Your task to perform on an android device: Show me productivity apps on the Play Store Image 0: 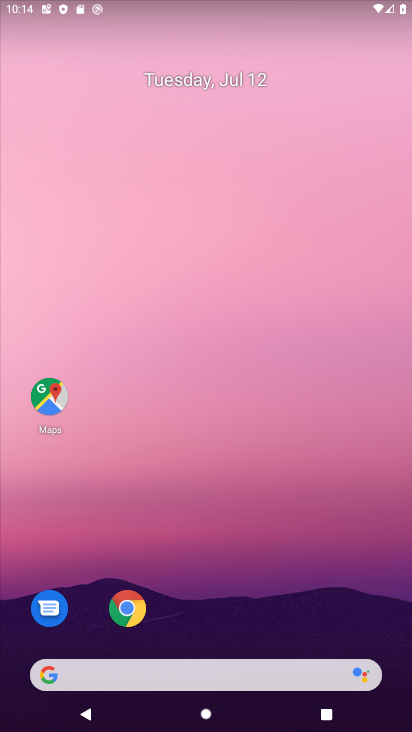
Step 0: drag from (240, 560) to (328, 29)
Your task to perform on an android device: Show me productivity apps on the Play Store Image 1: 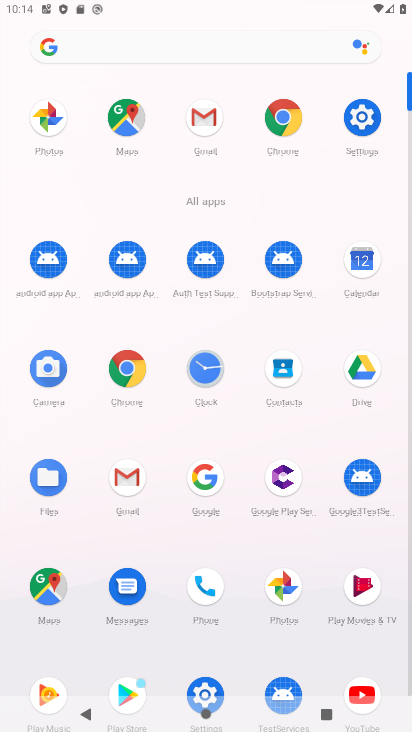
Step 1: click (128, 684)
Your task to perform on an android device: Show me productivity apps on the Play Store Image 2: 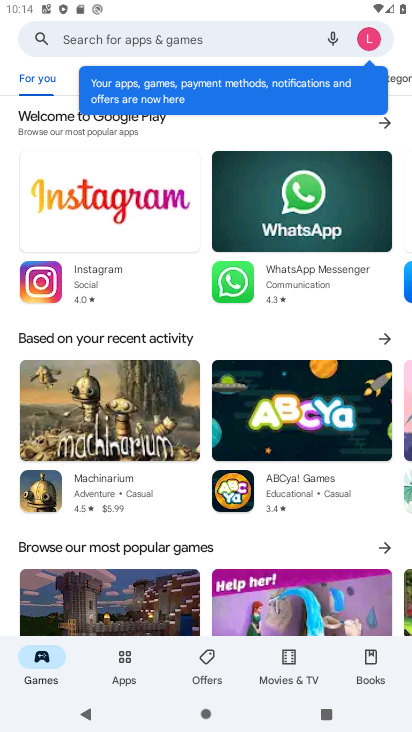
Step 2: click (126, 667)
Your task to perform on an android device: Show me productivity apps on the Play Store Image 3: 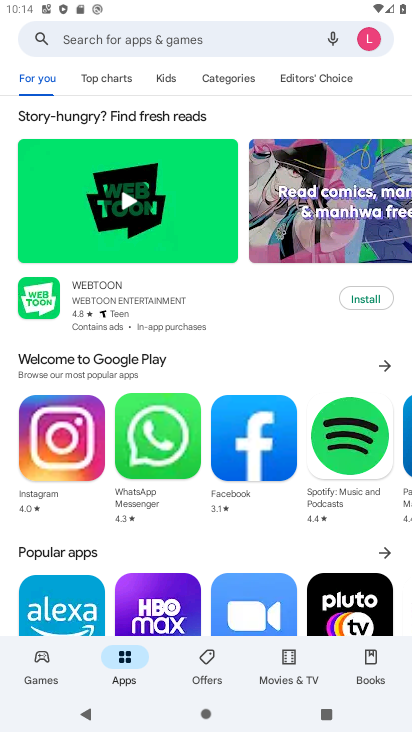
Step 3: click (244, 82)
Your task to perform on an android device: Show me productivity apps on the Play Store Image 4: 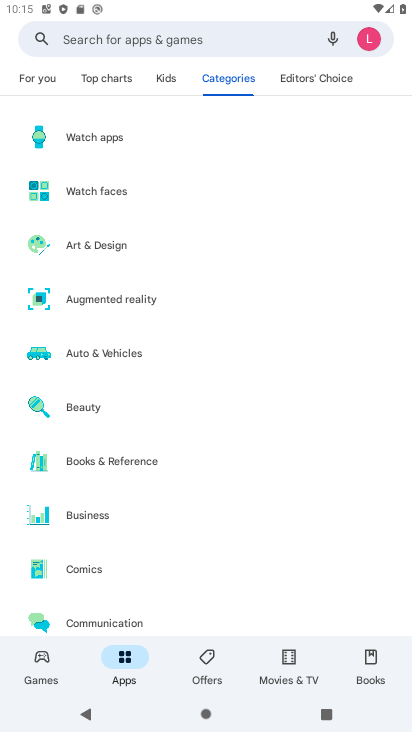
Step 4: drag from (220, 567) to (238, 176)
Your task to perform on an android device: Show me productivity apps on the Play Store Image 5: 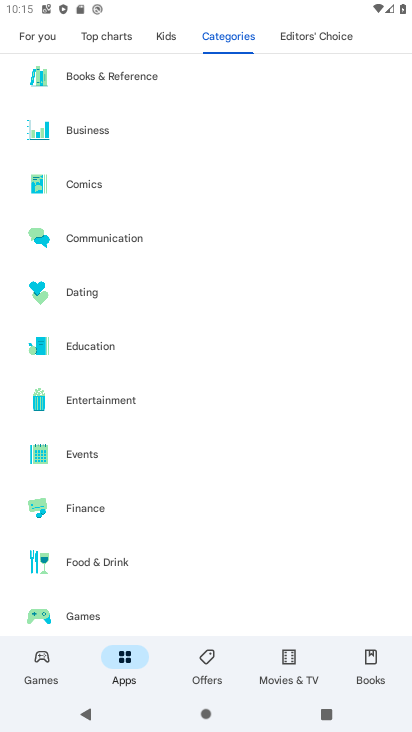
Step 5: drag from (132, 554) to (120, 21)
Your task to perform on an android device: Show me productivity apps on the Play Store Image 6: 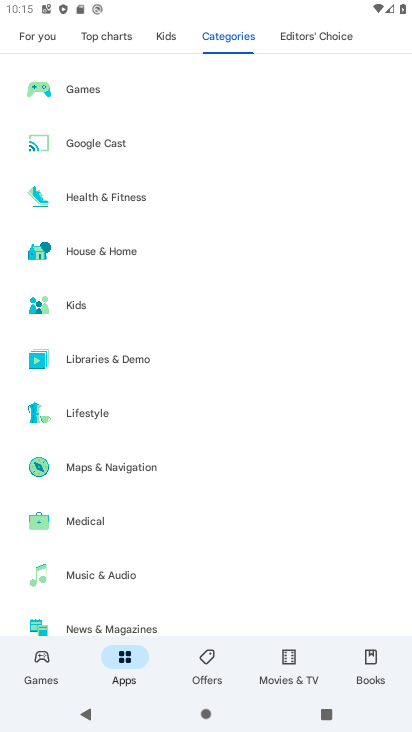
Step 6: drag from (121, 552) to (128, 95)
Your task to perform on an android device: Show me productivity apps on the Play Store Image 7: 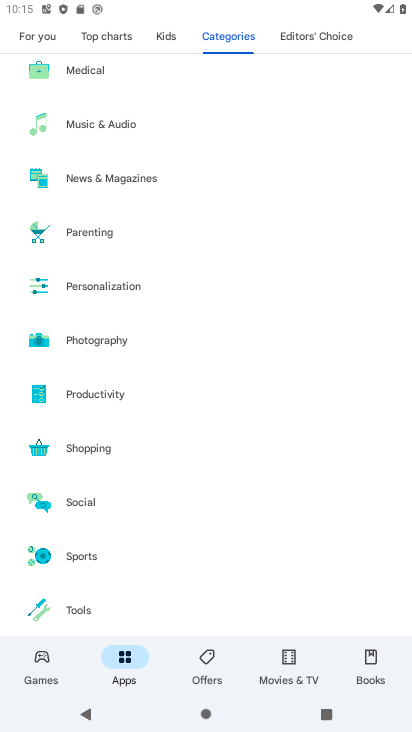
Step 7: drag from (165, 620) to (185, 423)
Your task to perform on an android device: Show me productivity apps on the Play Store Image 8: 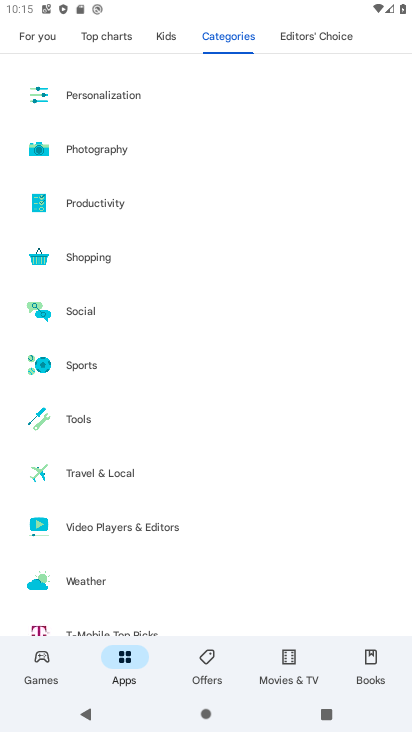
Step 8: click (121, 199)
Your task to perform on an android device: Show me productivity apps on the Play Store Image 9: 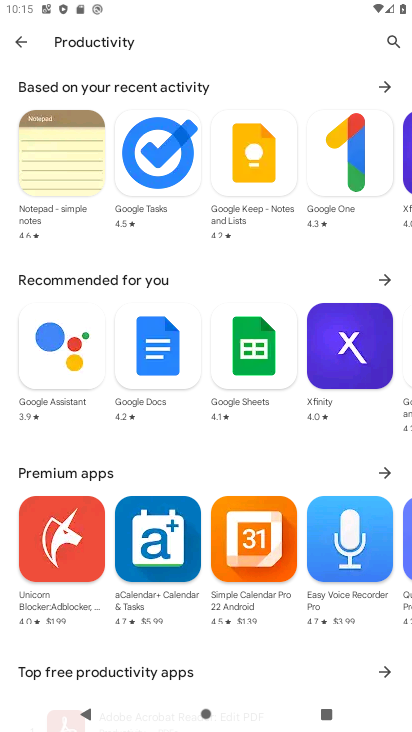
Step 9: task complete